Your task to perform on an android device: open app "Skype" (install if not already installed) Image 0: 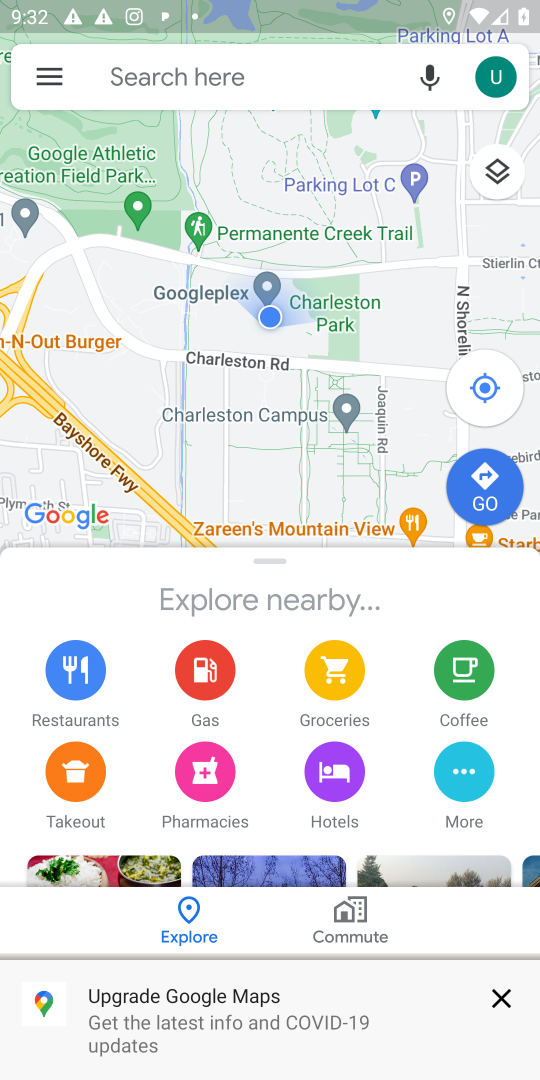
Step 0: press home button
Your task to perform on an android device: open app "Skype" (install if not already installed) Image 1: 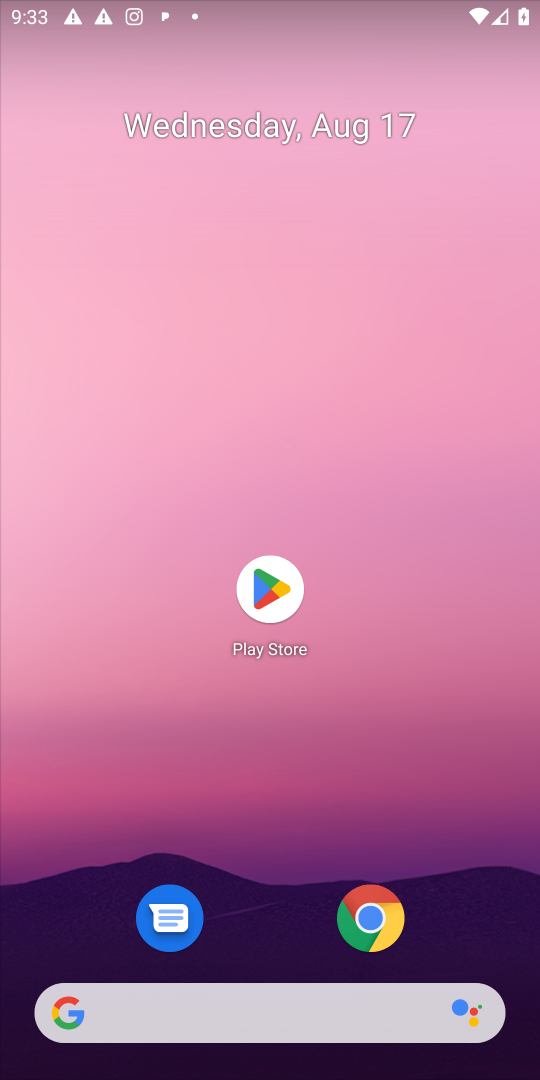
Step 1: click (252, 590)
Your task to perform on an android device: open app "Skype" (install if not already installed) Image 2: 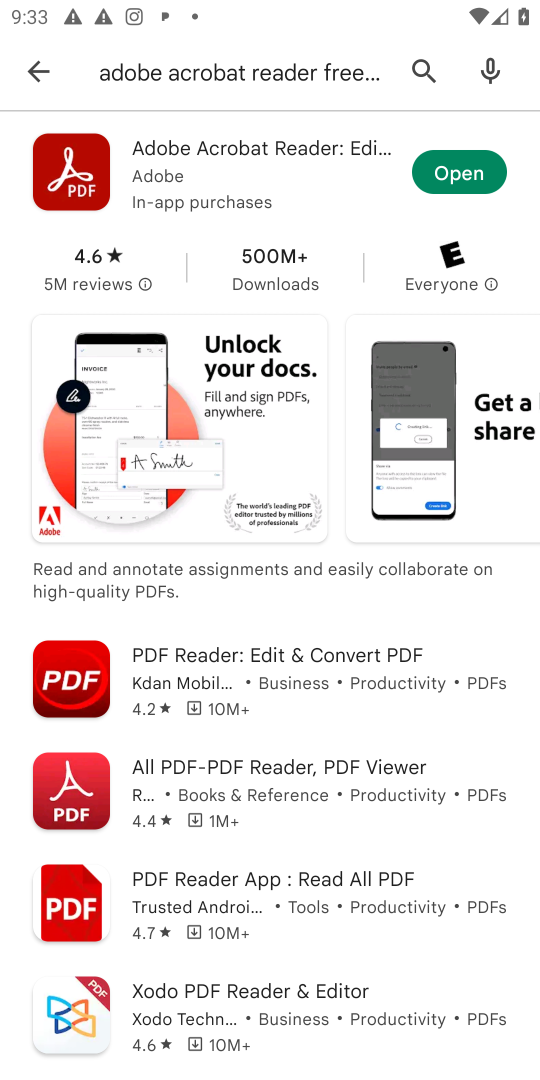
Step 2: click (424, 73)
Your task to perform on an android device: open app "Skype" (install if not already installed) Image 3: 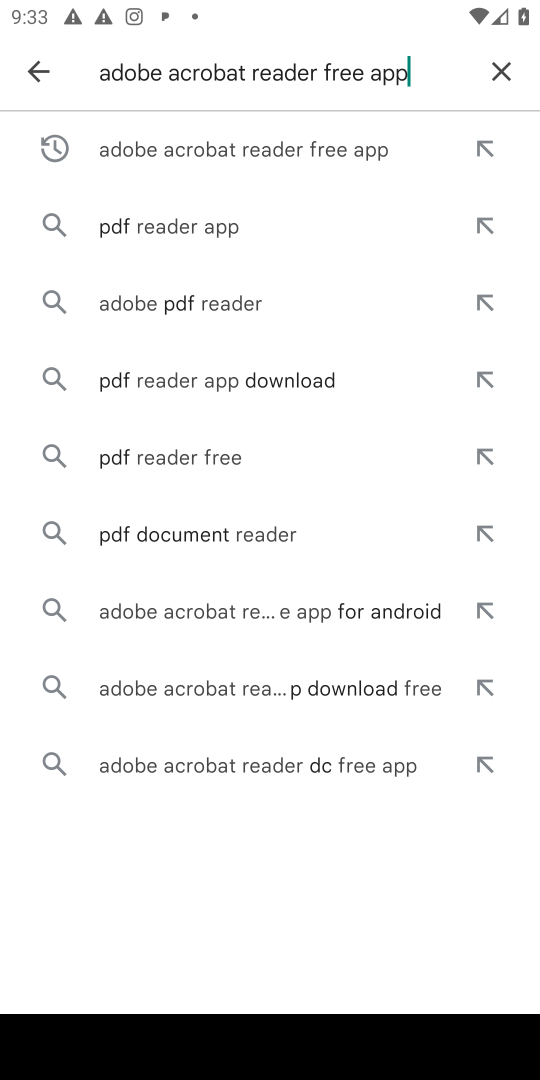
Step 3: click (496, 65)
Your task to perform on an android device: open app "Skype" (install if not already installed) Image 4: 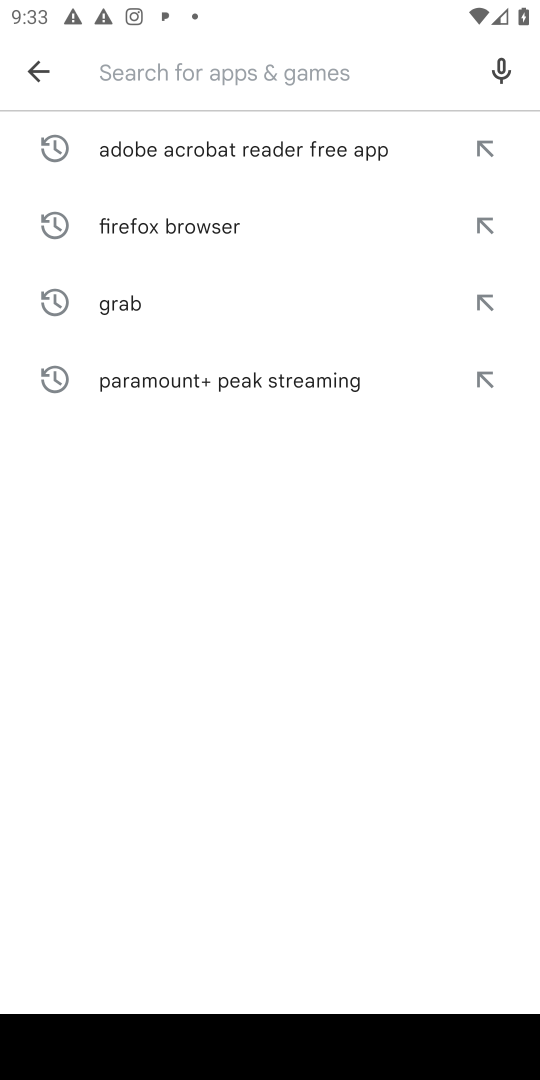
Step 4: type "Skype"
Your task to perform on an android device: open app "Skype" (install if not already installed) Image 5: 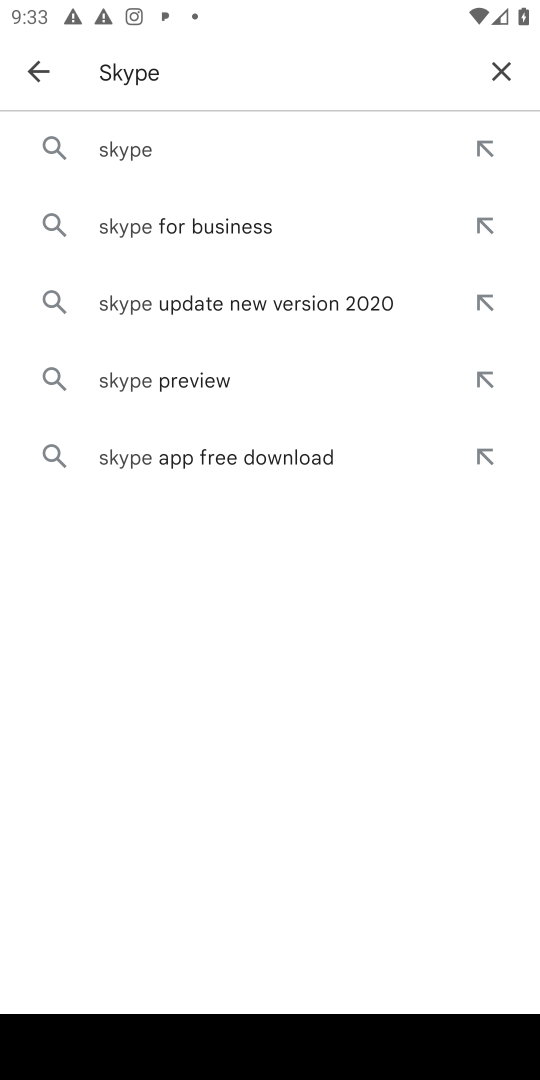
Step 5: click (137, 148)
Your task to perform on an android device: open app "Skype" (install if not already installed) Image 6: 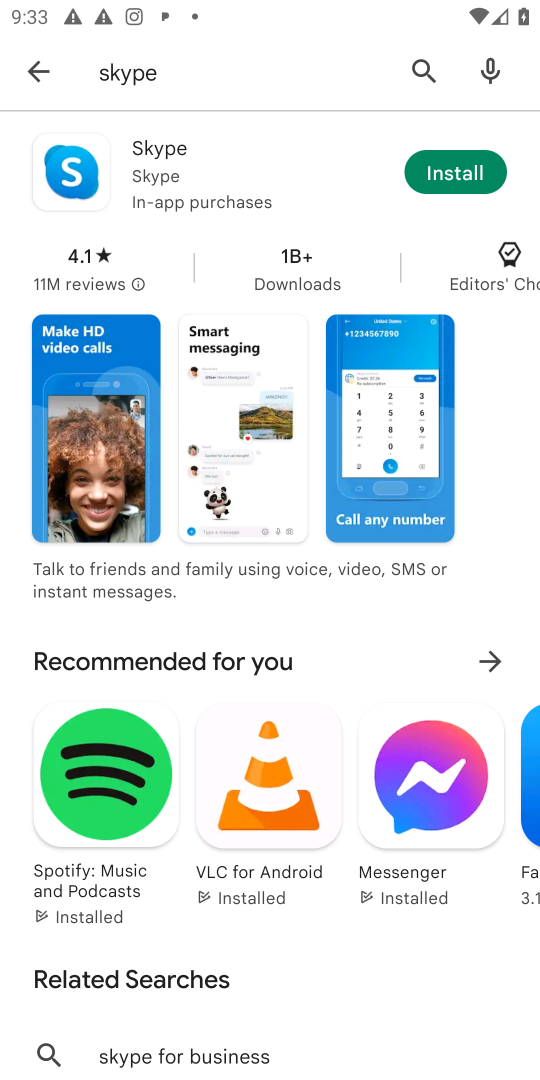
Step 6: click (473, 172)
Your task to perform on an android device: open app "Skype" (install if not already installed) Image 7: 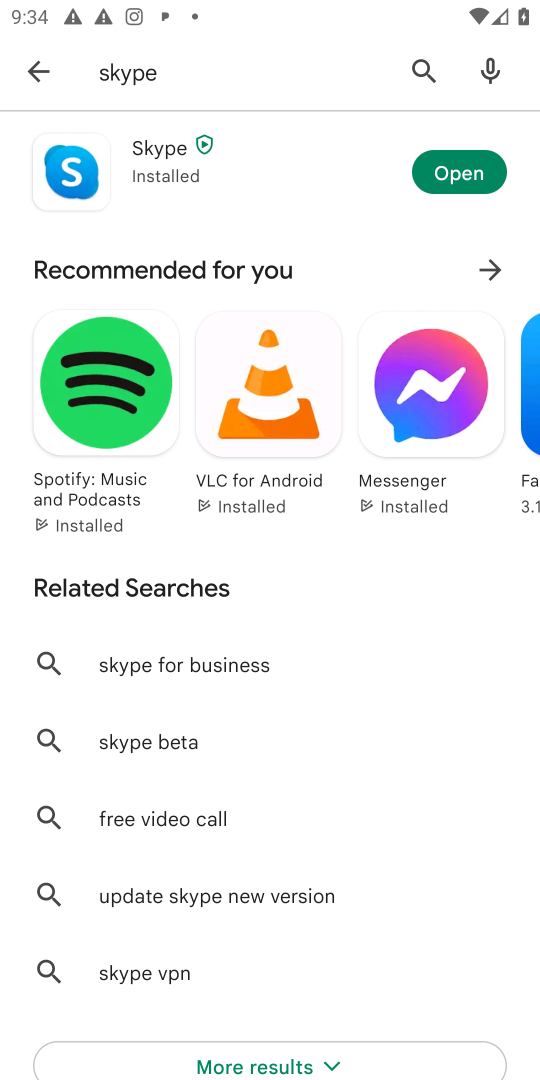
Step 7: click (467, 178)
Your task to perform on an android device: open app "Skype" (install if not already installed) Image 8: 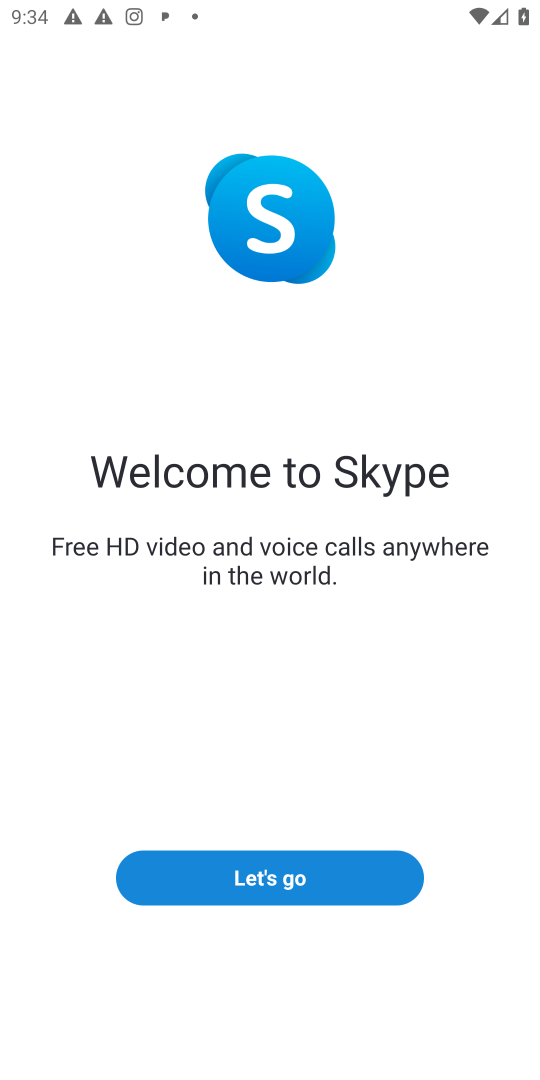
Step 8: task complete